Your task to perform on an android device: Open my contact list Image 0: 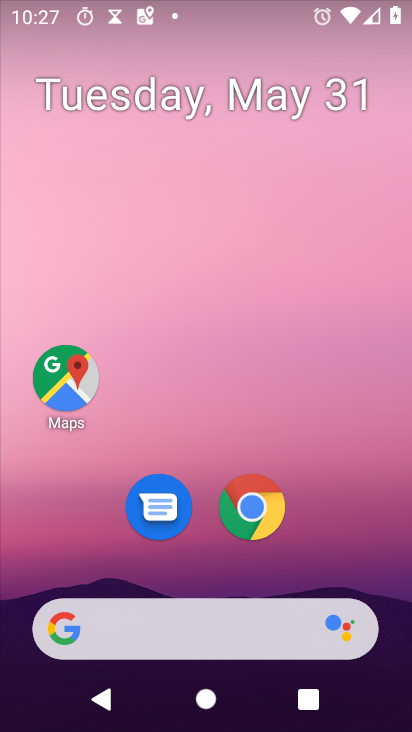
Step 0: drag from (51, 491) to (250, 66)
Your task to perform on an android device: Open my contact list Image 1: 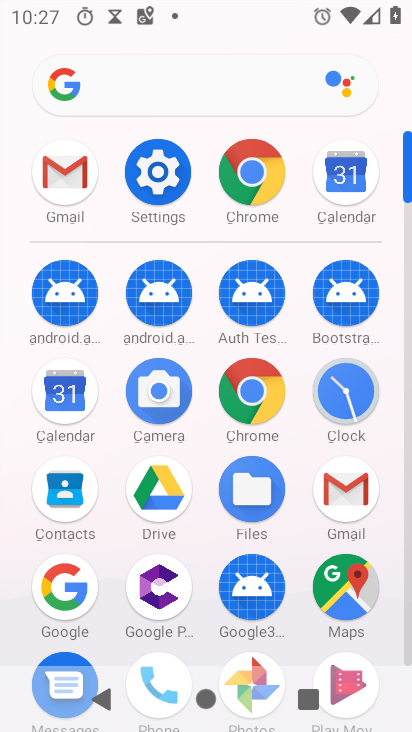
Step 1: click (156, 652)
Your task to perform on an android device: Open my contact list Image 2: 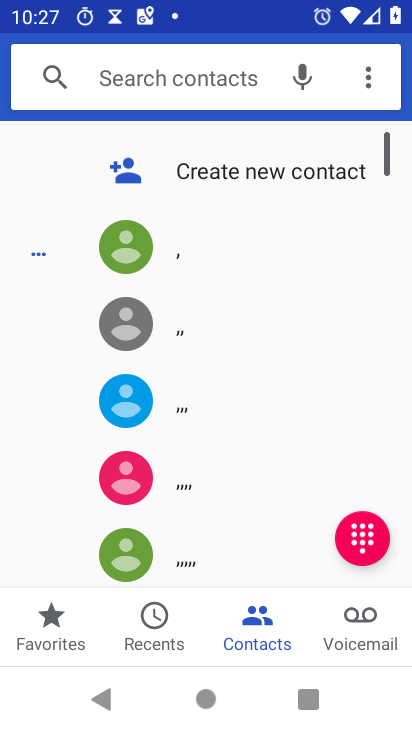
Step 2: task complete